Your task to perform on an android device: check battery use Image 0: 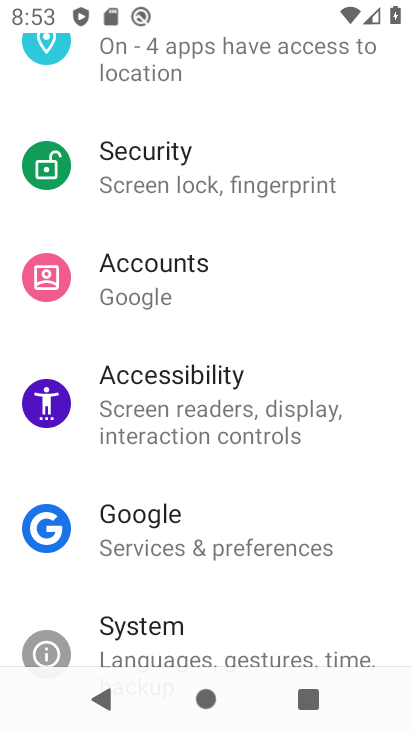
Step 0: drag from (232, 251) to (240, 601)
Your task to perform on an android device: check battery use Image 1: 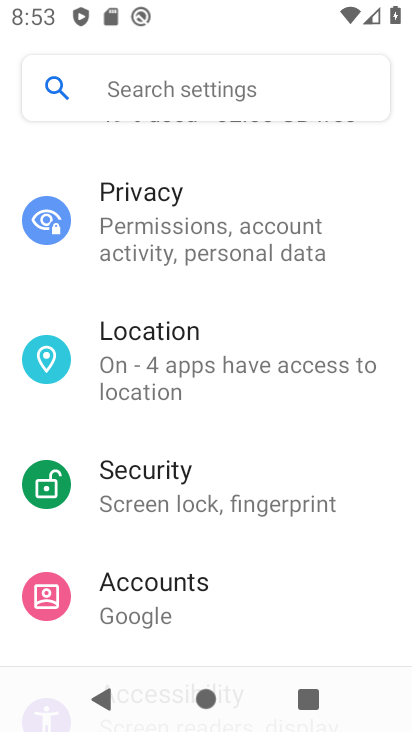
Step 1: drag from (215, 265) to (216, 578)
Your task to perform on an android device: check battery use Image 2: 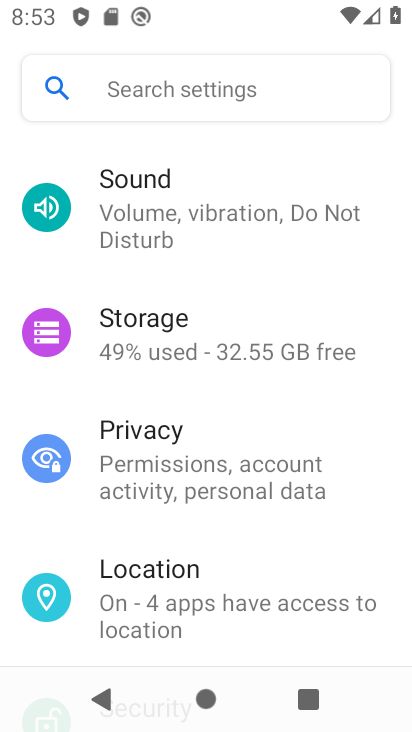
Step 2: drag from (215, 304) to (206, 567)
Your task to perform on an android device: check battery use Image 3: 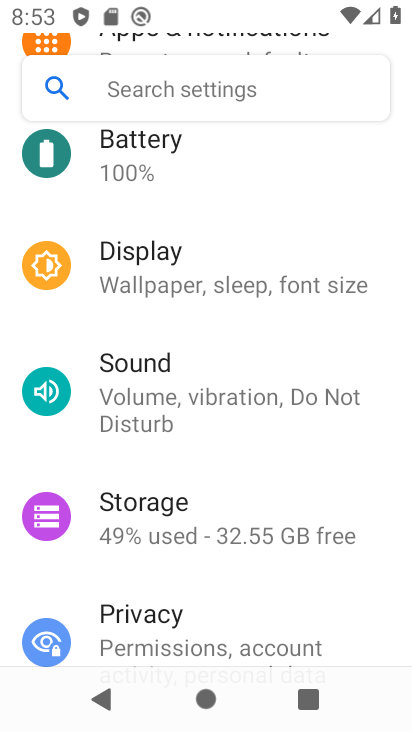
Step 3: click (170, 167)
Your task to perform on an android device: check battery use Image 4: 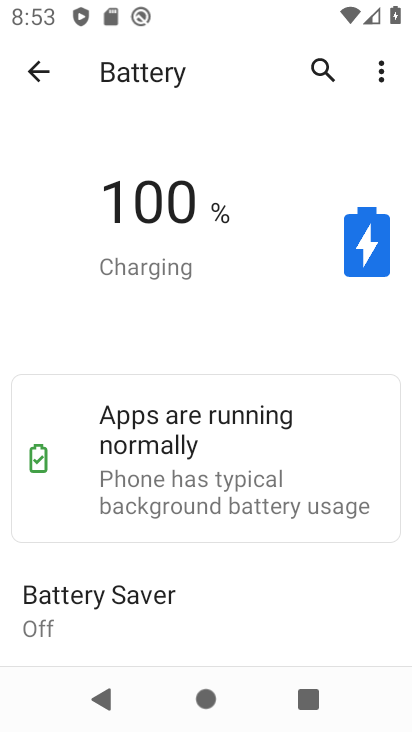
Step 4: click (390, 77)
Your task to perform on an android device: check battery use Image 5: 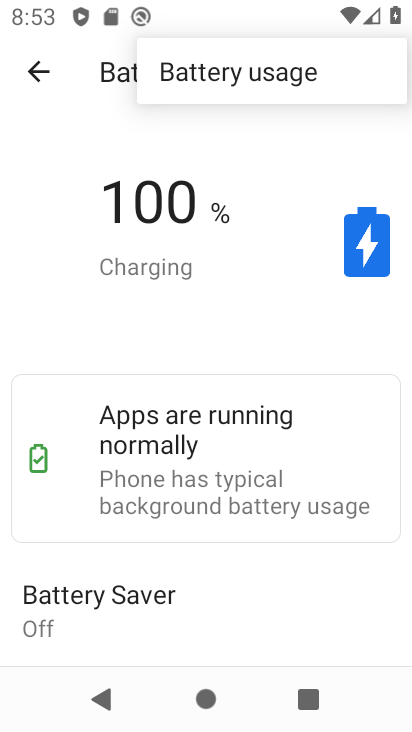
Step 5: click (277, 81)
Your task to perform on an android device: check battery use Image 6: 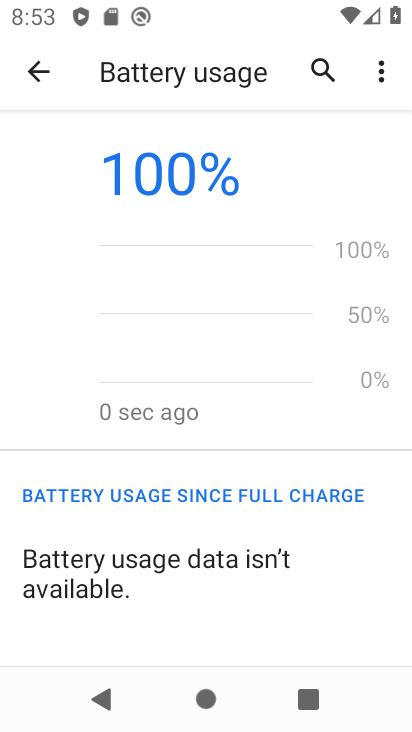
Step 6: task complete